Your task to perform on an android device: Set the phone to "Do not disturb". Image 0: 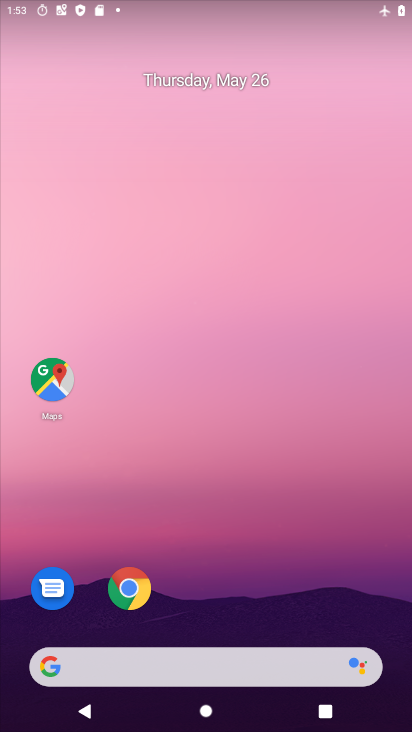
Step 0: drag from (402, 649) to (313, 146)
Your task to perform on an android device: Set the phone to "Do not disturb". Image 1: 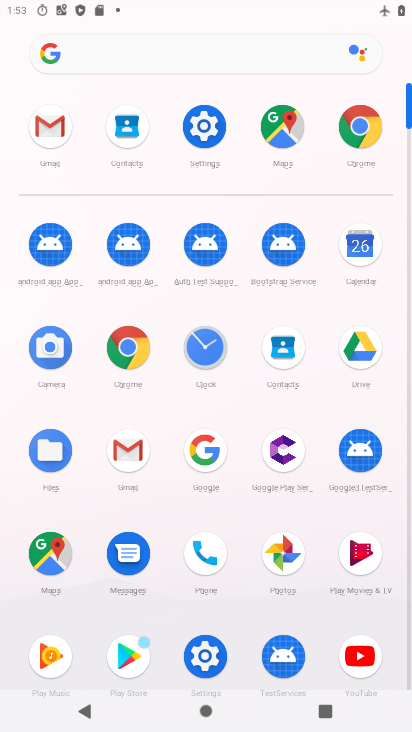
Step 1: click (197, 659)
Your task to perform on an android device: Set the phone to "Do not disturb". Image 2: 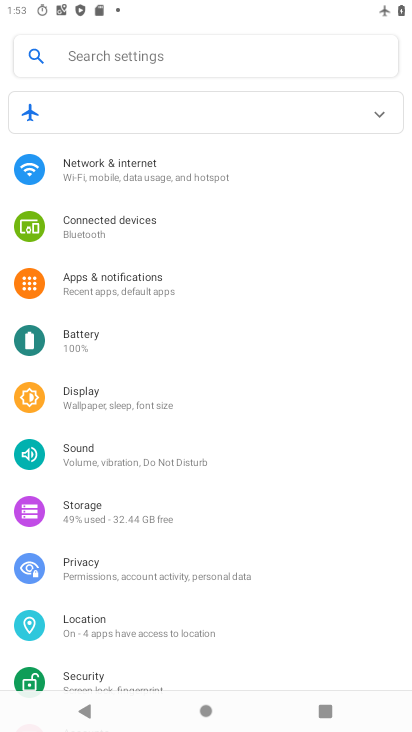
Step 2: click (95, 452)
Your task to perform on an android device: Set the phone to "Do not disturb". Image 3: 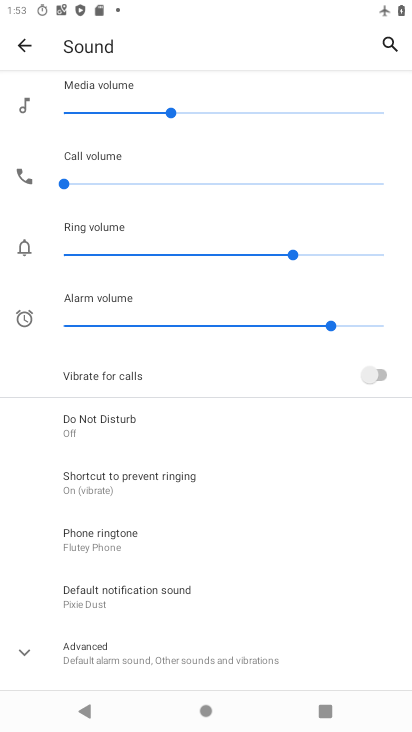
Step 3: click (83, 422)
Your task to perform on an android device: Set the phone to "Do not disturb". Image 4: 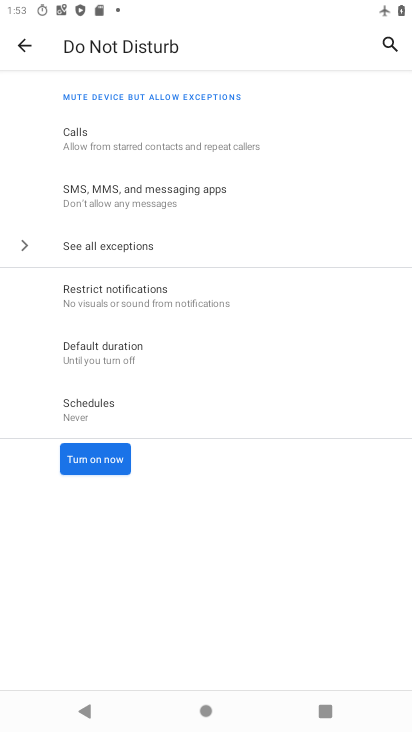
Step 4: click (89, 461)
Your task to perform on an android device: Set the phone to "Do not disturb". Image 5: 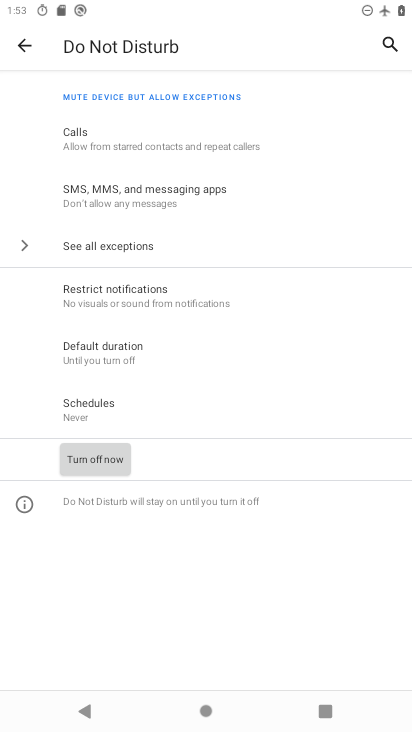
Step 5: task complete